Your task to perform on an android device: Go to calendar. Show me events next week Image 0: 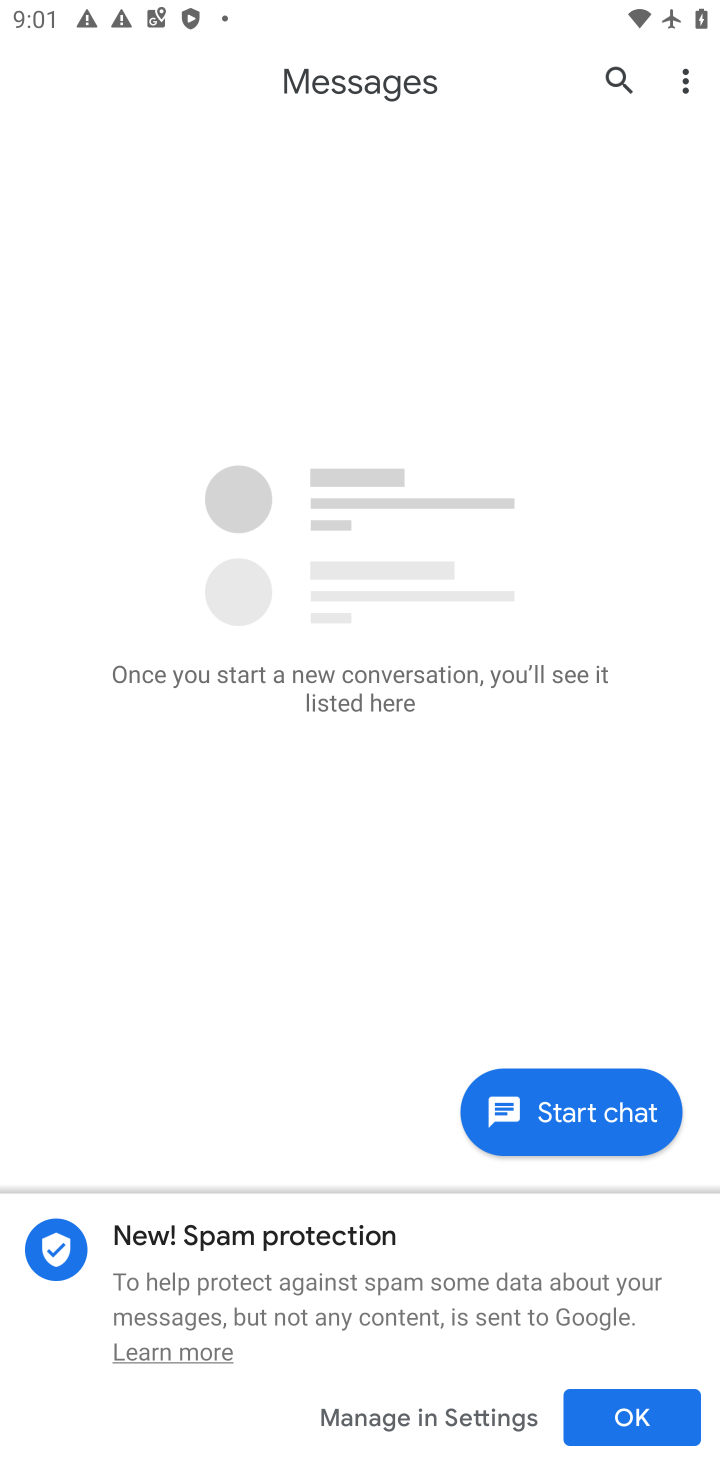
Step 0: press home button
Your task to perform on an android device: Go to calendar. Show me events next week Image 1: 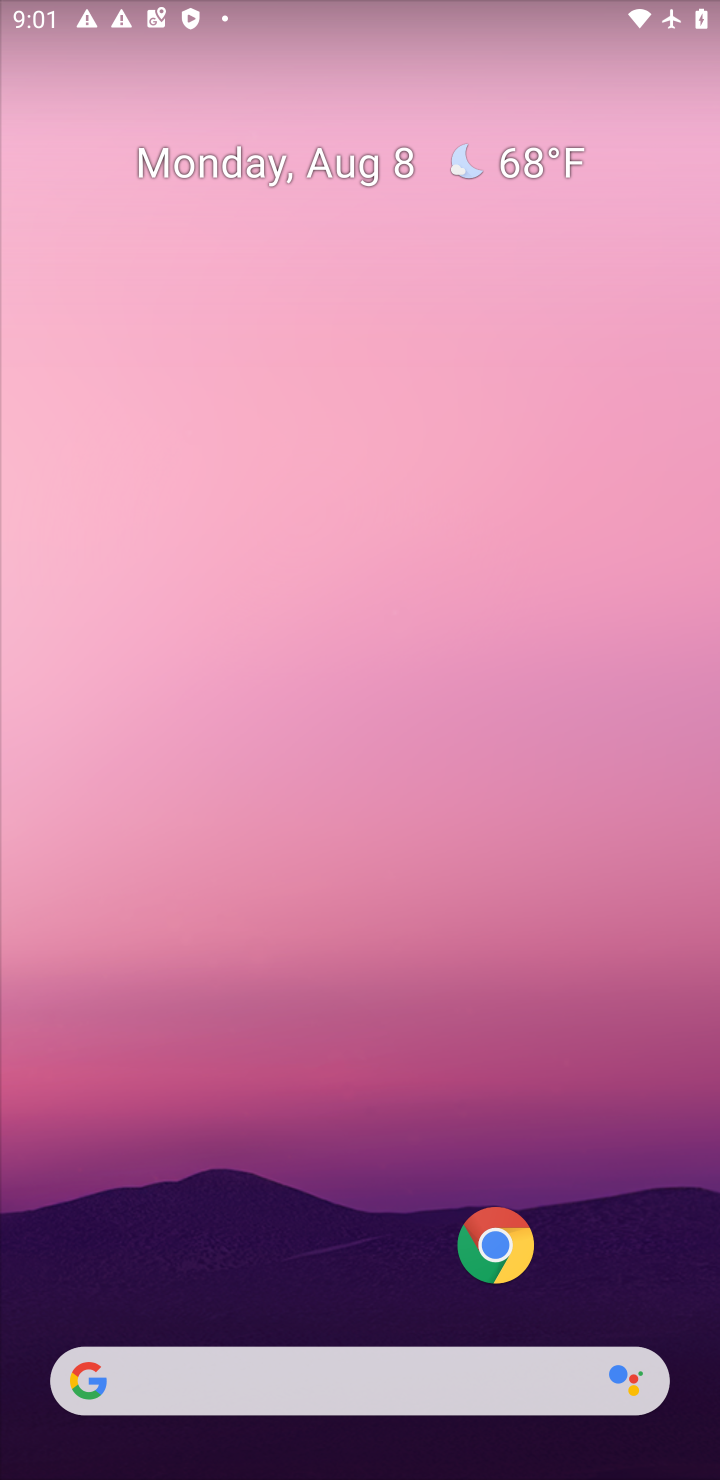
Step 1: drag from (238, 1087) to (209, 257)
Your task to perform on an android device: Go to calendar. Show me events next week Image 2: 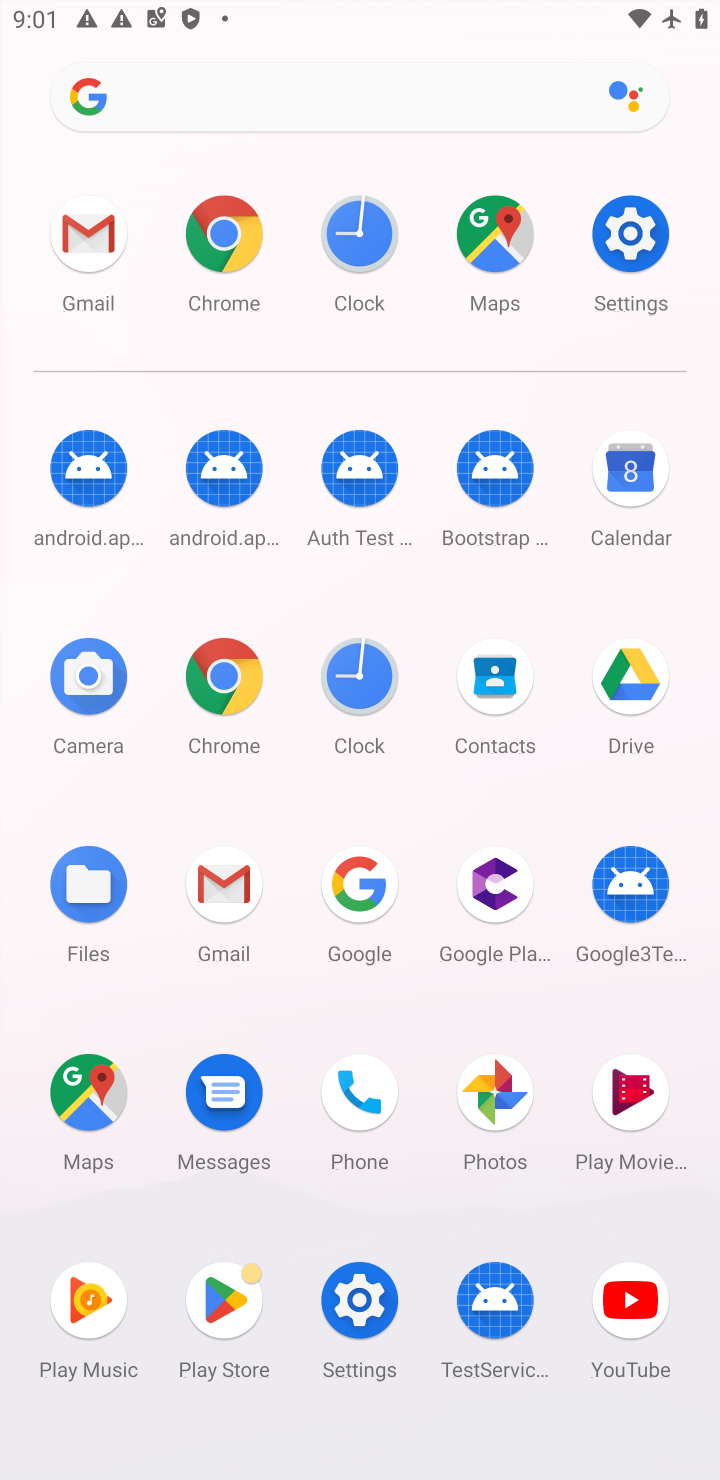
Step 2: click (644, 465)
Your task to perform on an android device: Go to calendar. Show me events next week Image 3: 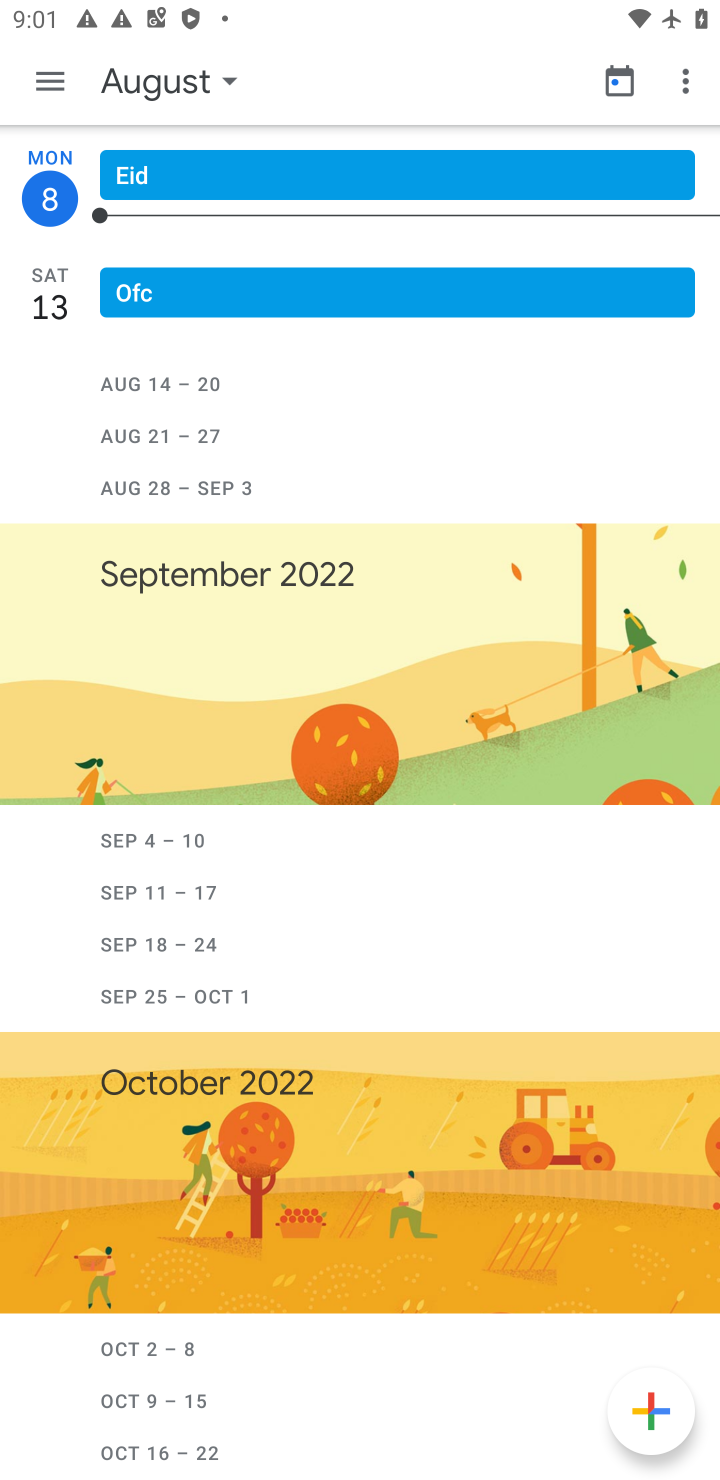
Step 3: click (34, 88)
Your task to perform on an android device: Go to calendar. Show me events next week Image 4: 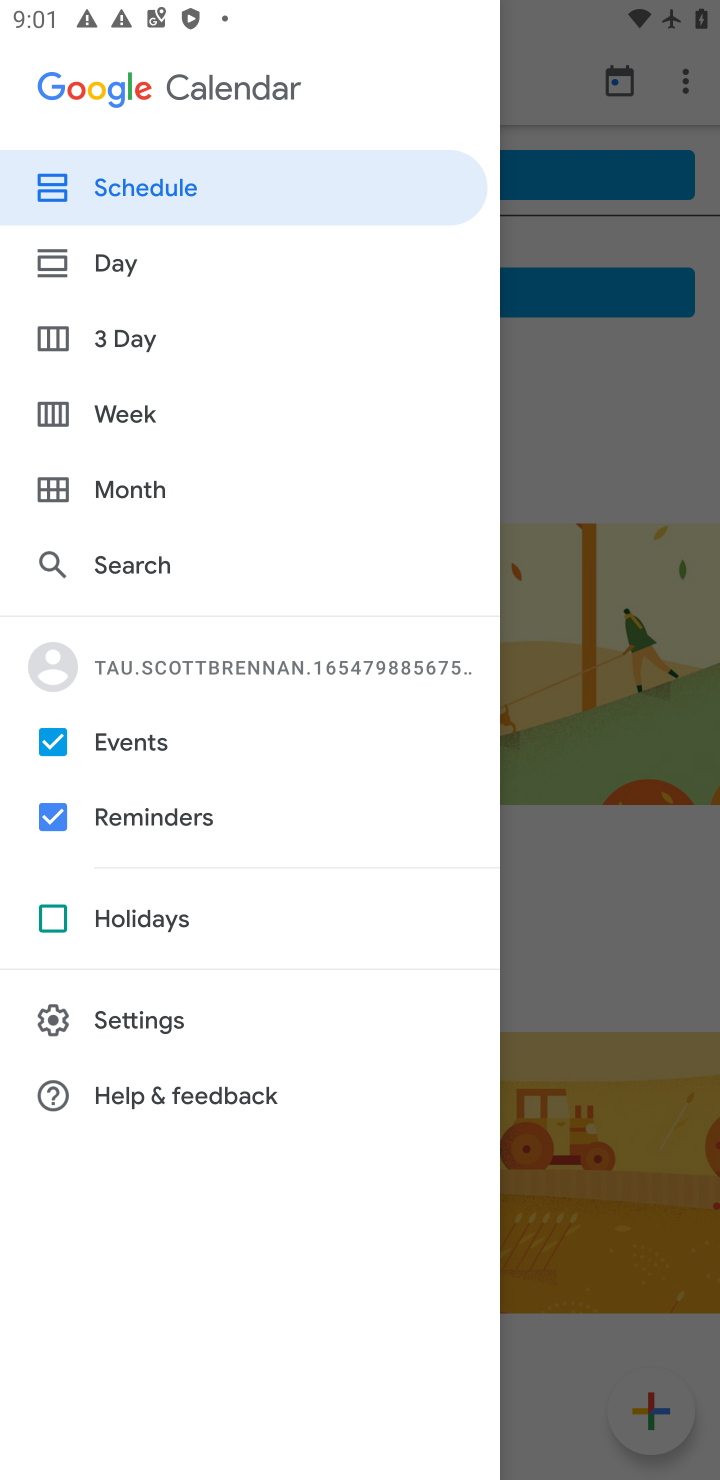
Step 4: click (102, 810)
Your task to perform on an android device: Go to calendar. Show me events next week Image 5: 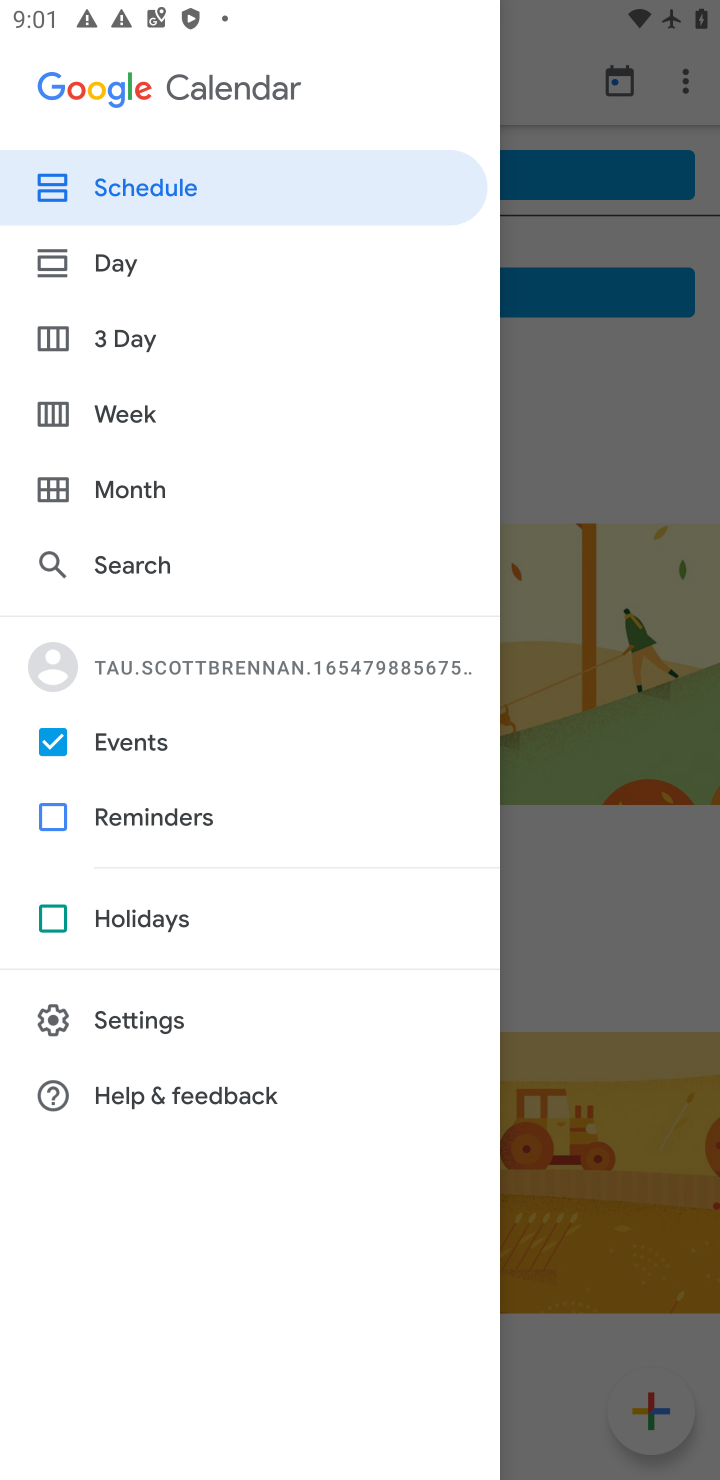
Step 5: click (133, 404)
Your task to perform on an android device: Go to calendar. Show me events next week Image 6: 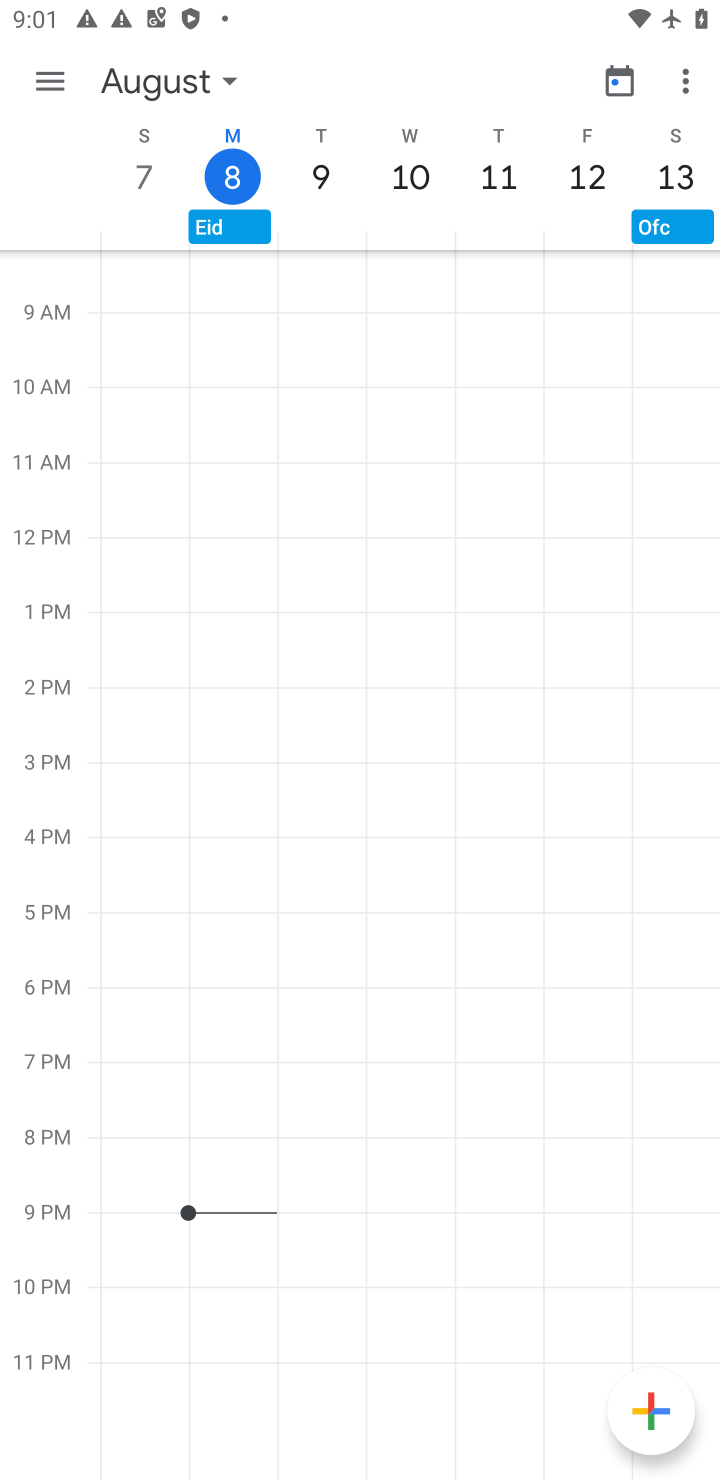
Step 6: task complete